Your task to perform on an android device: Open calendar and show me the first week of next month Image 0: 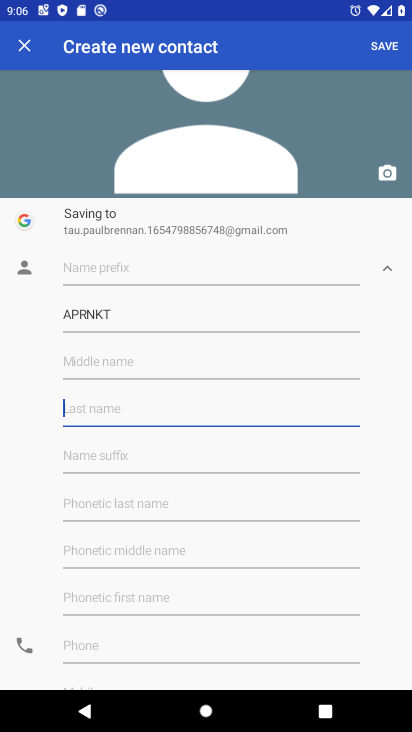
Step 0: press home button
Your task to perform on an android device: Open calendar and show me the first week of next month Image 1: 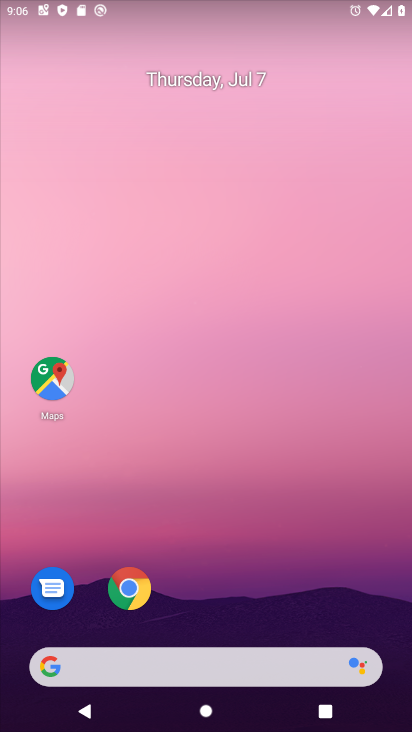
Step 1: drag from (211, 617) to (194, 2)
Your task to perform on an android device: Open calendar and show me the first week of next month Image 2: 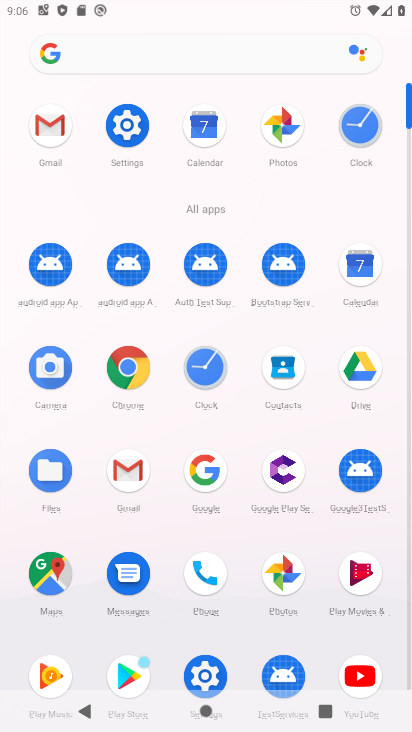
Step 2: click (357, 263)
Your task to perform on an android device: Open calendar and show me the first week of next month Image 3: 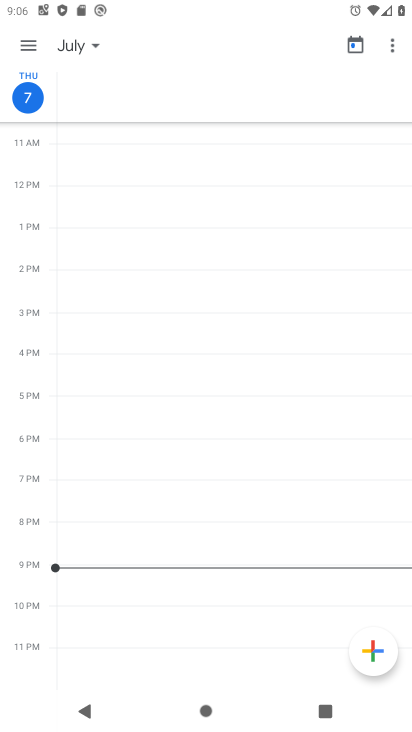
Step 3: click (94, 37)
Your task to perform on an android device: Open calendar and show me the first week of next month Image 4: 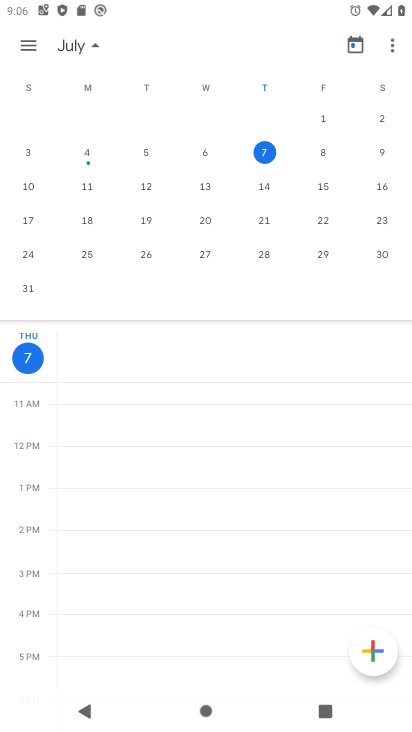
Step 4: drag from (368, 182) to (2, 204)
Your task to perform on an android device: Open calendar and show me the first week of next month Image 5: 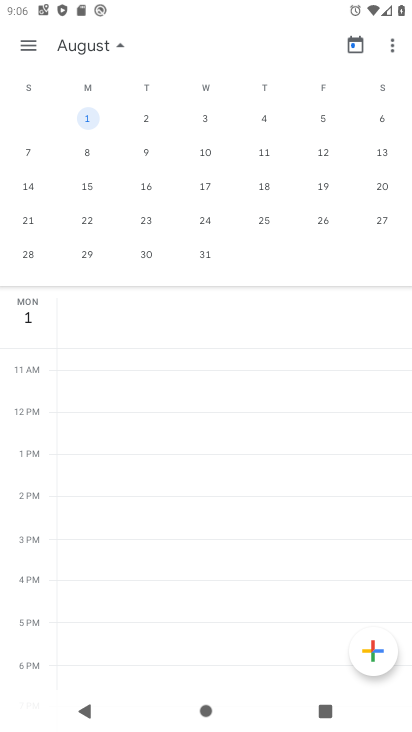
Step 5: click (90, 114)
Your task to perform on an android device: Open calendar and show me the first week of next month Image 6: 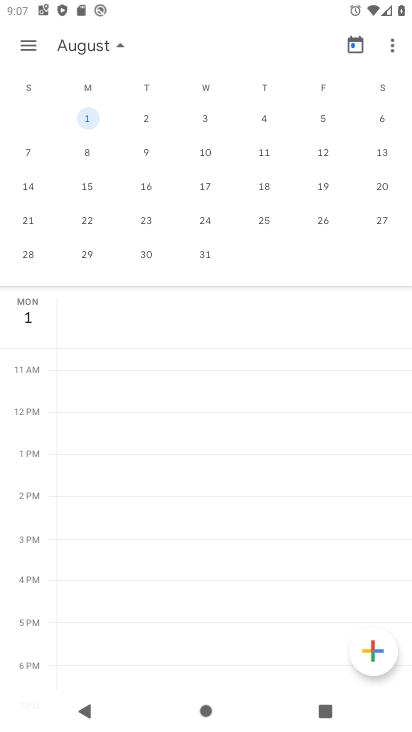
Step 6: click (86, 115)
Your task to perform on an android device: Open calendar and show me the first week of next month Image 7: 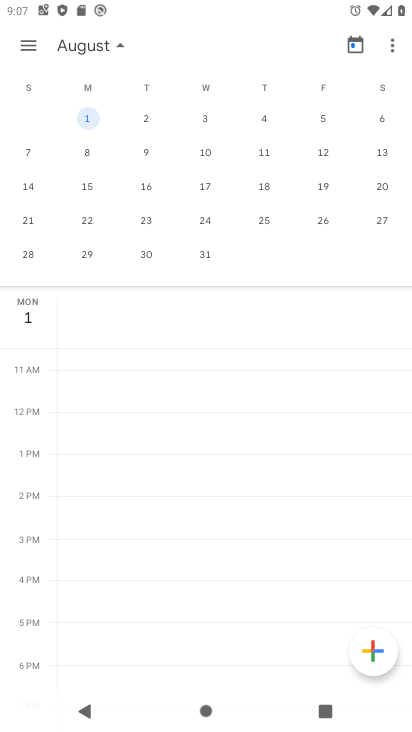
Step 7: click (38, 308)
Your task to perform on an android device: Open calendar and show me the first week of next month Image 8: 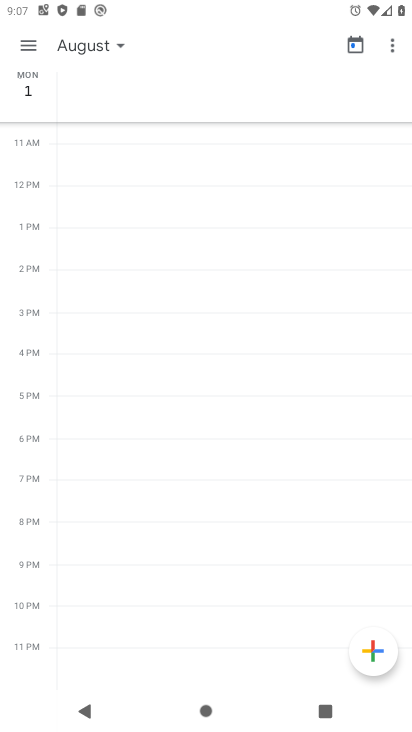
Step 8: click (31, 84)
Your task to perform on an android device: Open calendar and show me the first week of next month Image 9: 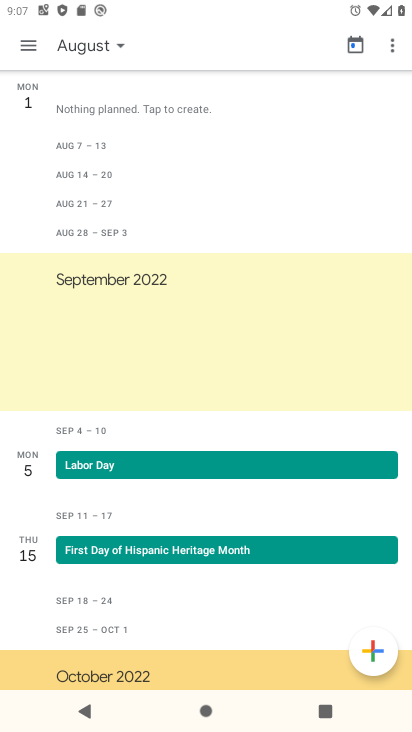
Step 9: click (118, 38)
Your task to perform on an android device: Open calendar and show me the first week of next month Image 10: 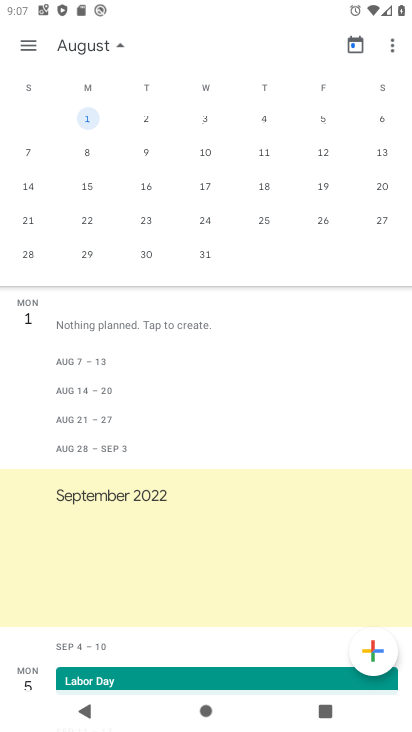
Step 10: click (92, 115)
Your task to perform on an android device: Open calendar and show me the first week of next month Image 11: 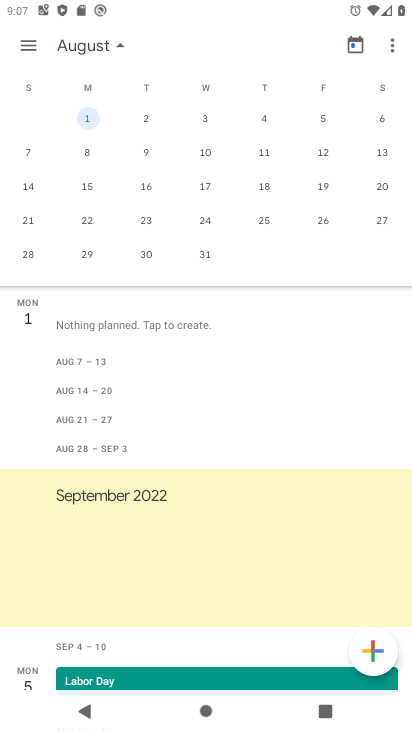
Step 11: click (29, 37)
Your task to perform on an android device: Open calendar and show me the first week of next month Image 12: 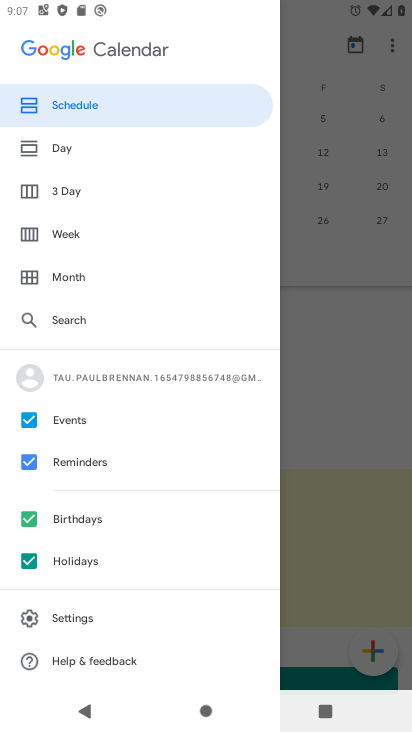
Step 12: click (65, 226)
Your task to perform on an android device: Open calendar and show me the first week of next month Image 13: 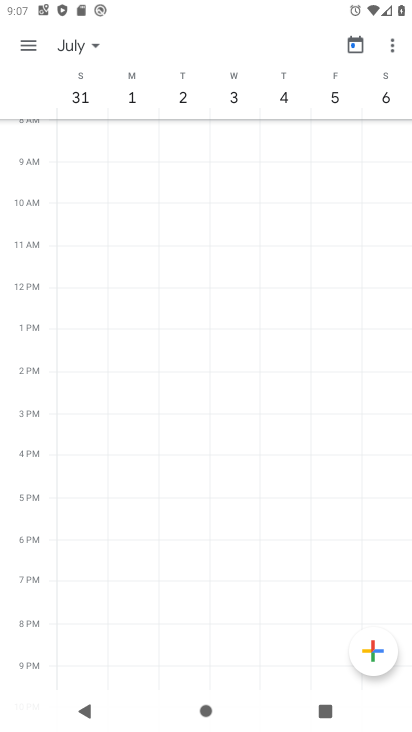
Step 13: task complete